Your task to perform on an android device: set default search engine in the chrome app Image 0: 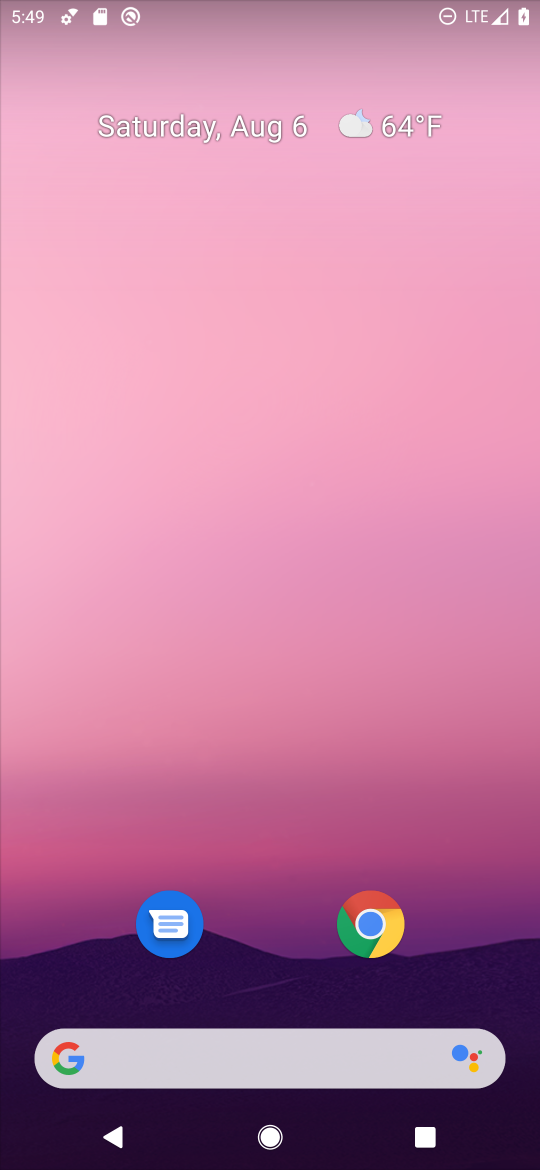
Step 0: click (372, 927)
Your task to perform on an android device: set default search engine in the chrome app Image 1: 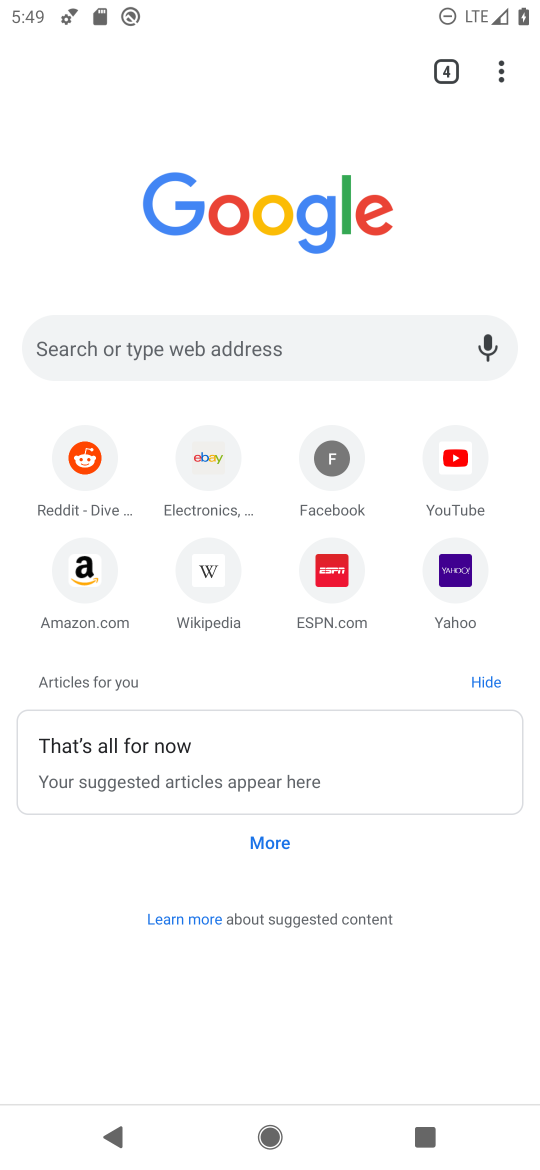
Step 1: click (501, 68)
Your task to perform on an android device: set default search engine in the chrome app Image 2: 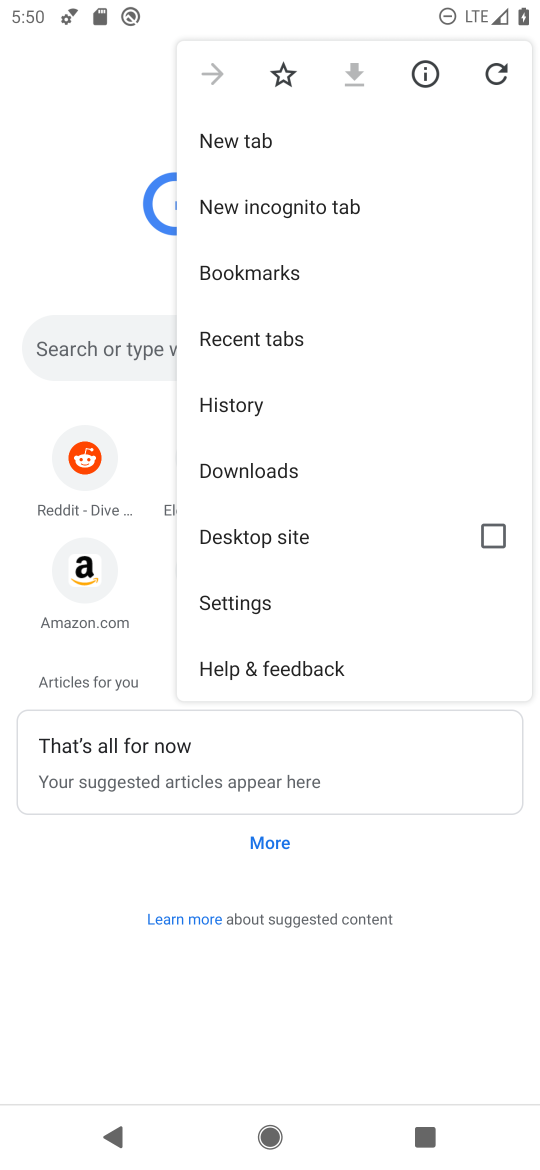
Step 2: click (247, 599)
Your task to perform on an android device: set default search engine in the chrome app Image 3: 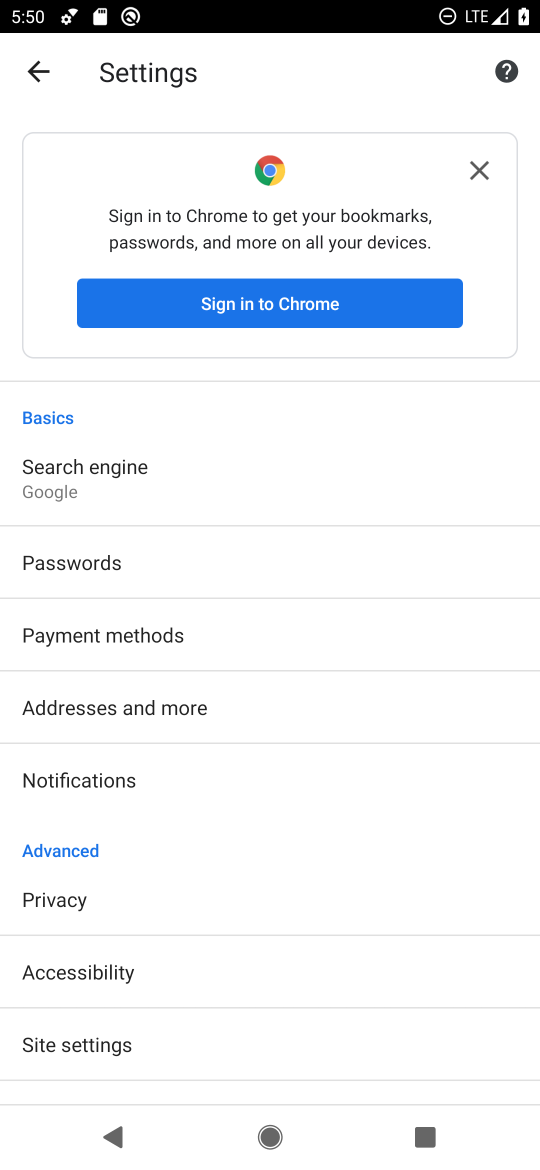
Step 3: click (98, 458)
Your task to perform on an android device: set default search engine in the chrome app Image 4: 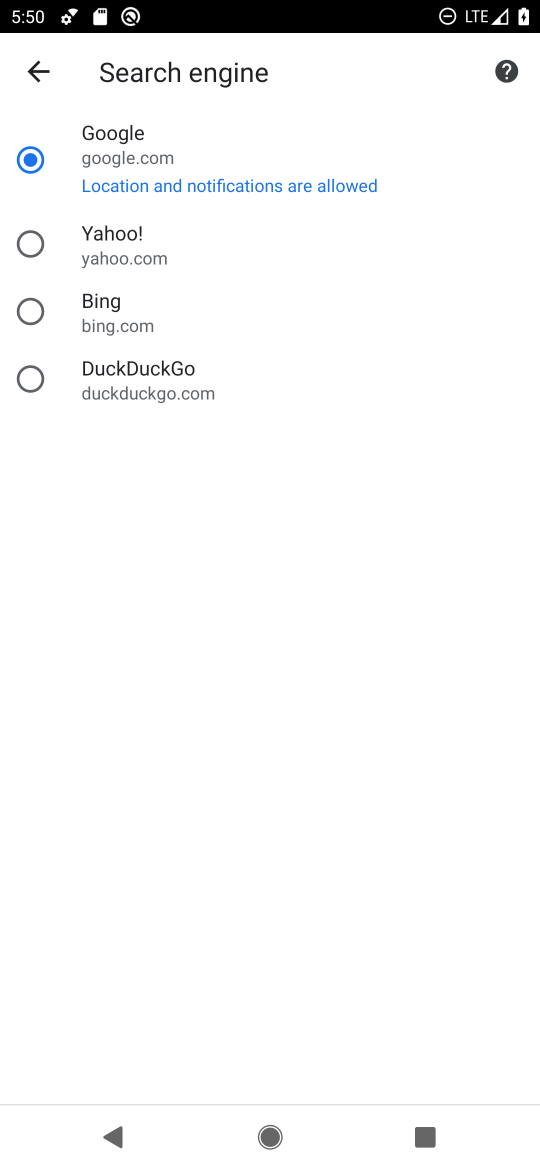
Step 4: task complete